Your task to perform on an android device: Open the stopwatch Image 0: 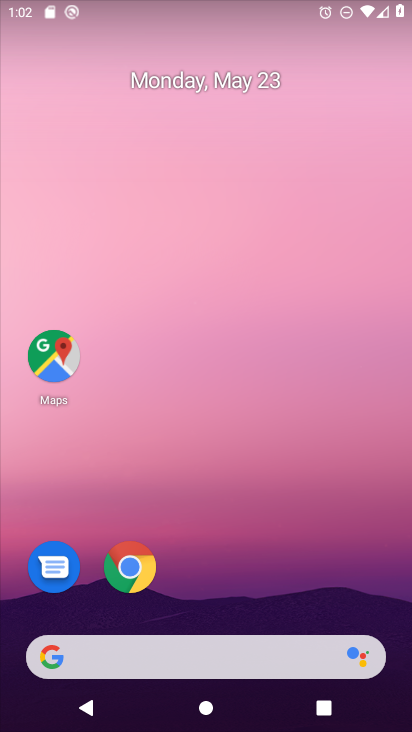
Step 0: drag from (223, 614) to (297, 17)
Your task to perform on an android device: Open the stopwatch Image 1: 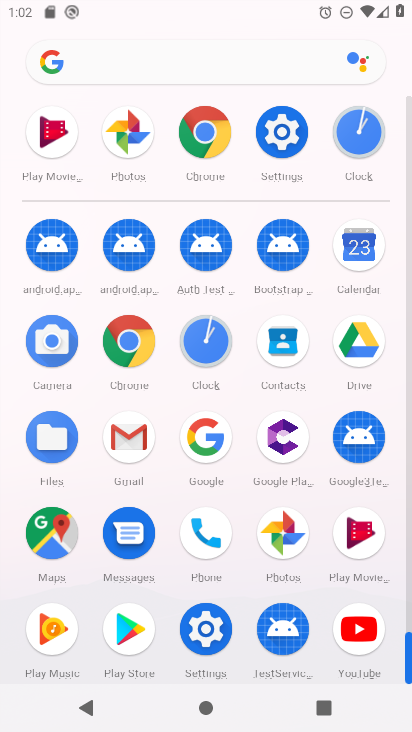
Step 1: click (351, 132)
Your task to perform on an android device: Open the stopwatch Image 2: 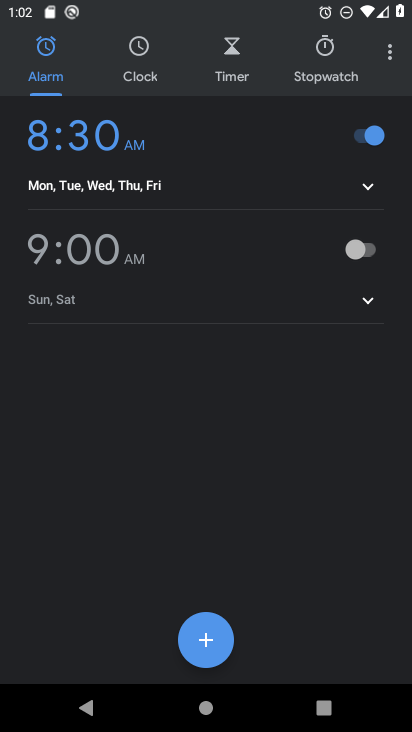
Step 2: click (330, 61)
Your task to perform on an android device: Open the stopwatch Image 3: 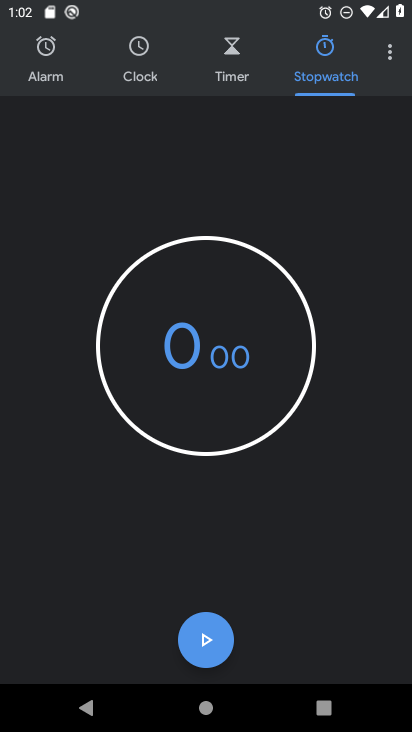
Step 3: task complete